Your task to perform on an android device: Open notification settings Image 0: 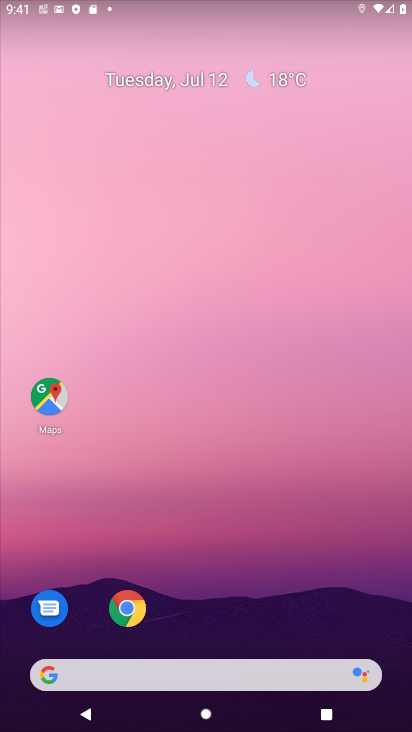
Step 0: drag from (259, 582) to (180, 78)
Your task to perform on an android device: Open notification settings Image 1: 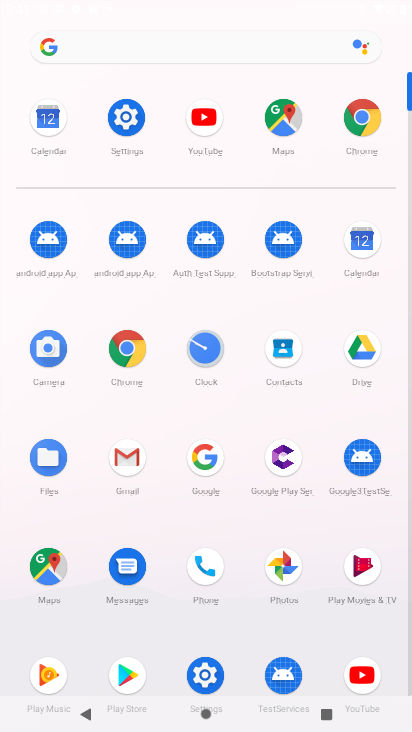
Step 1: click (126, 116)
Your task to perform on an android device: Open notification settings Image 2: 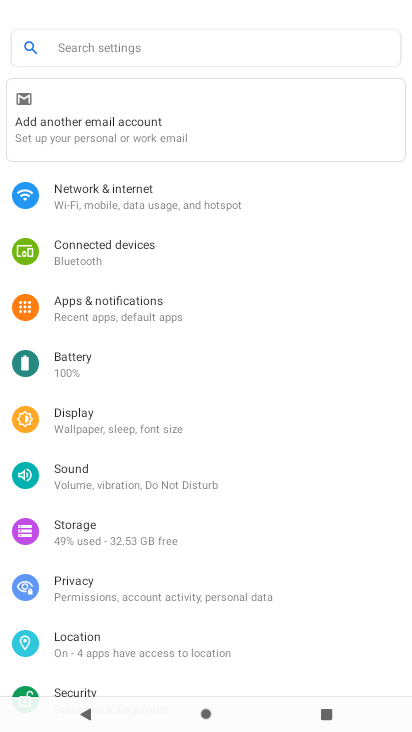
Step 2: click (120, 299)
Your task to perform on an android device: Open notification settings Image 3: 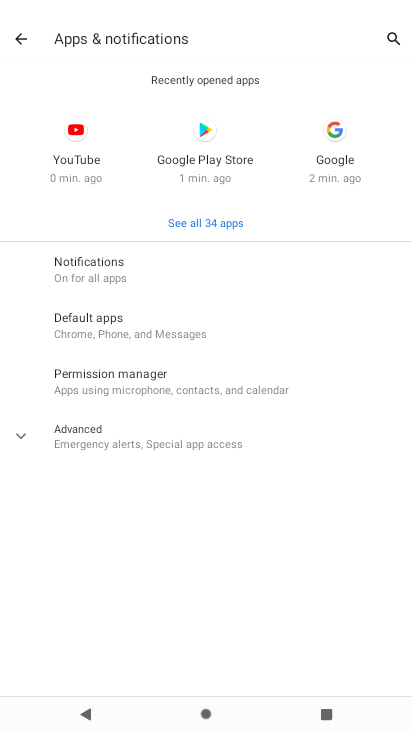
Step 3: click (87, 268)
Your task to perform on an android device: Open notification settings Image 4: 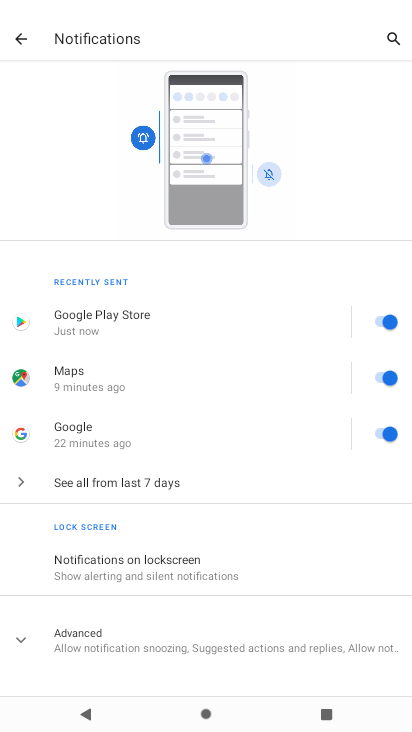
Step 4: task complete